Your task to perform on an android device: Play the latest video from the BBC Image 0: 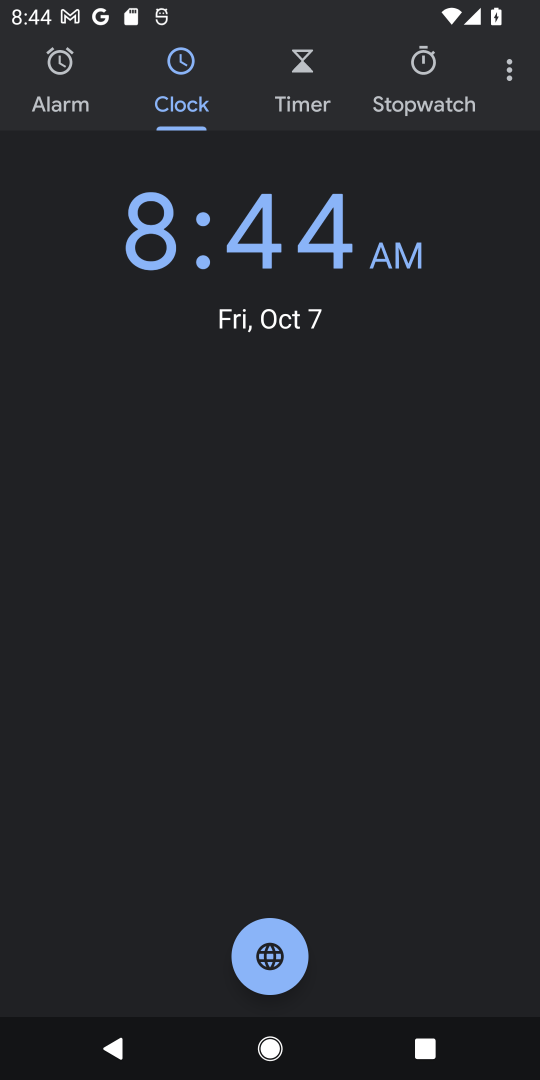
Step 0: press home button
Your task to perform on an android device: Play the latest video from the BBC Image 1: 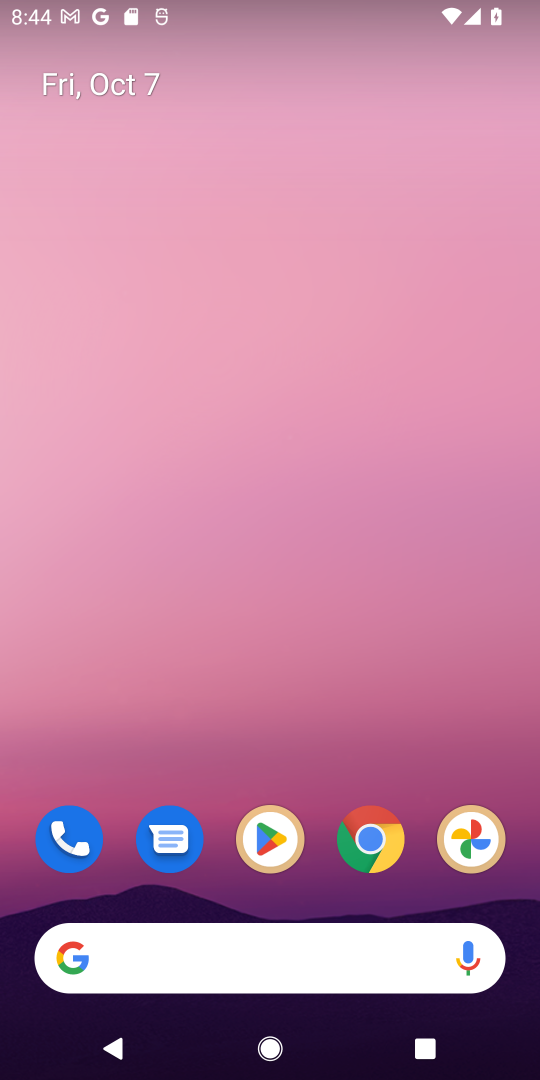
Step 1: click (391, 838)
Your task to perform on an android device: Play the latest video from the BBC Image 2: 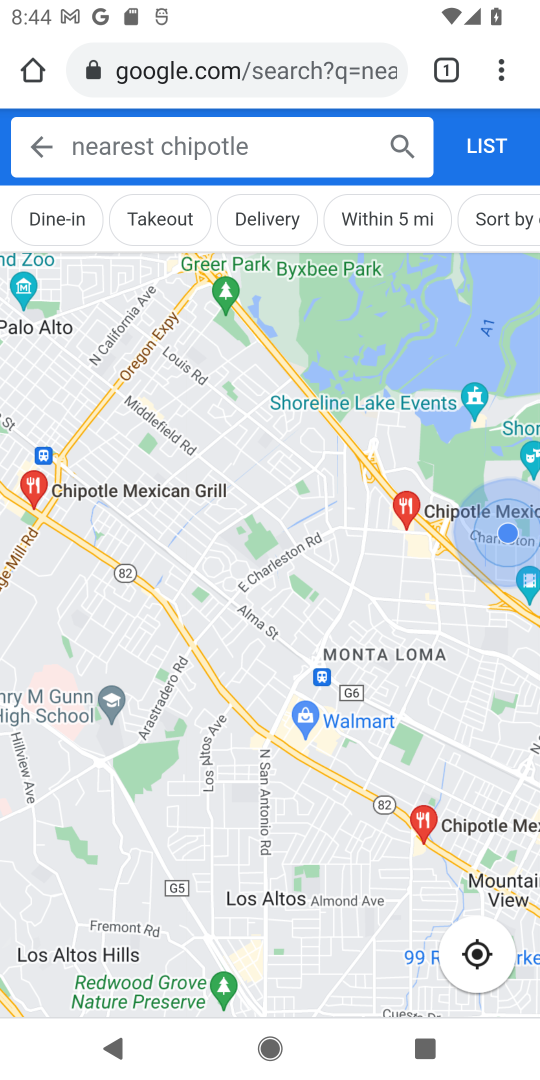
Step 2: click (232, 71)
Your task to perform on an android device: Play the latest video from the BBC Image 3: 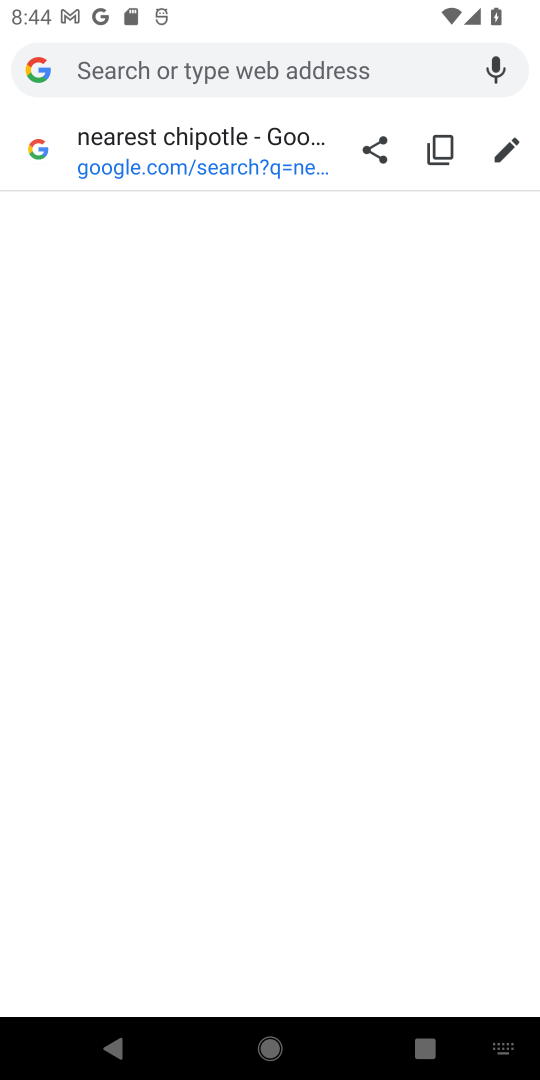
Step 3: type "bbc "
Your task to perform on an android device: Play the latest video from the BBC Image 4: 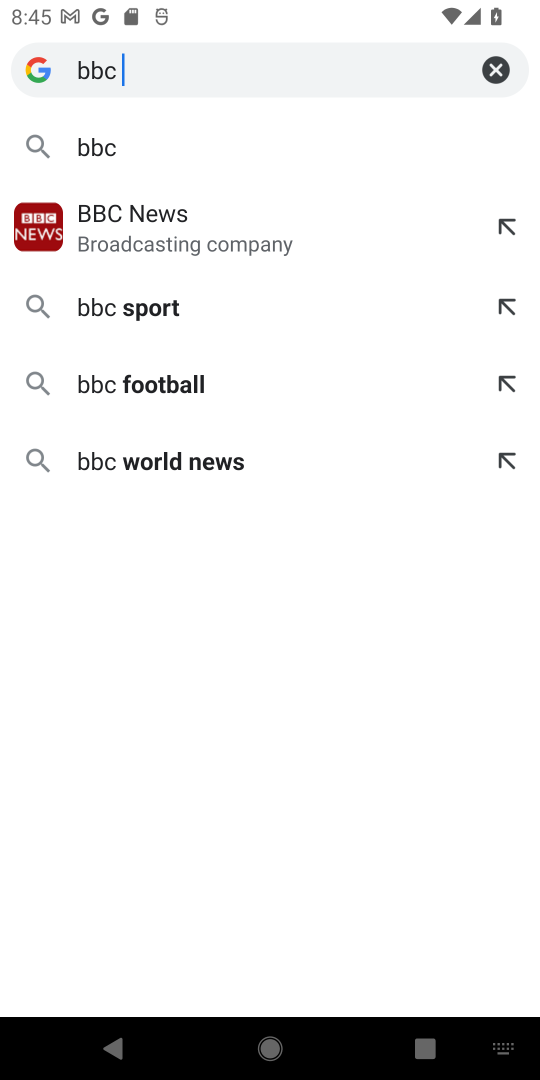
Step 4: click (160, 237)
Your task to perform on an android device: Play the latest video from the BBC Image 5: 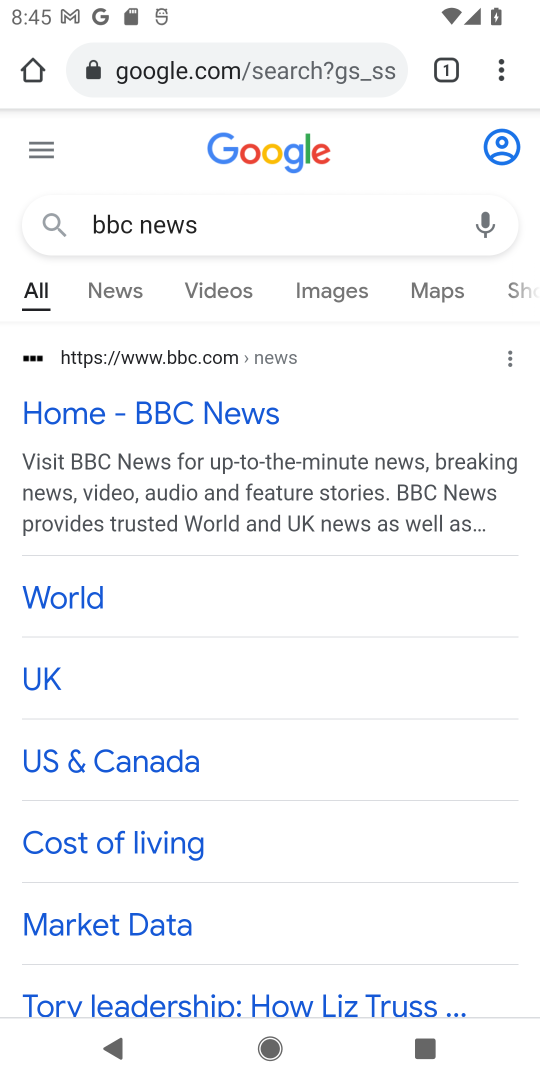
Step 5: drag from (253, 825) to (391, 363)
Your task to perform on an android device: Play the latest video from the BBC Image 6: 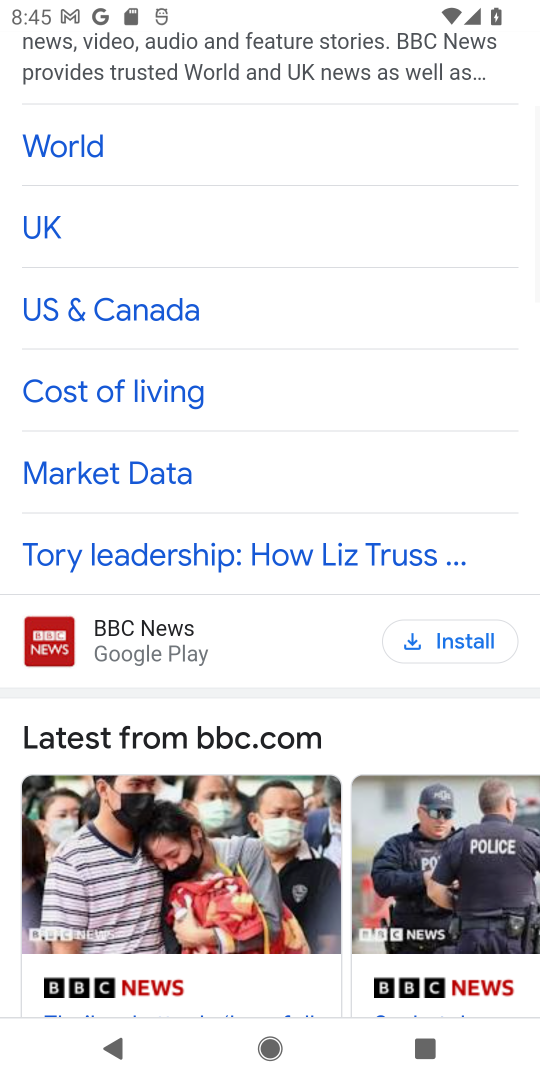
Step 6: drag from (326, 309) to (421, 278)
Your task to perform on an android device: Play the latest video from the BBC Image 7: 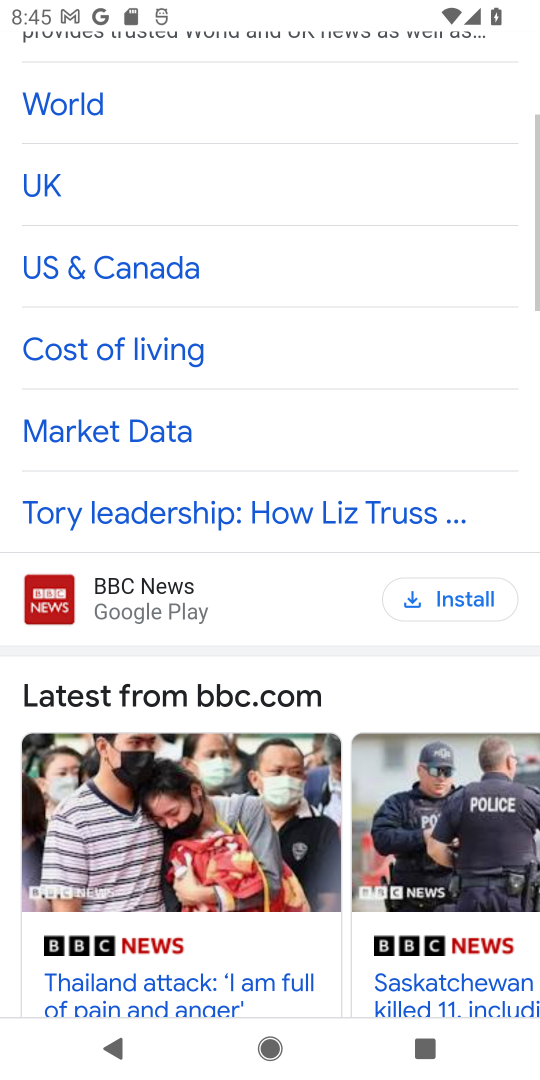
Step 7: click (173, 899)
Your task to perform on an android device: Play the latest video from the BBC Image 8: 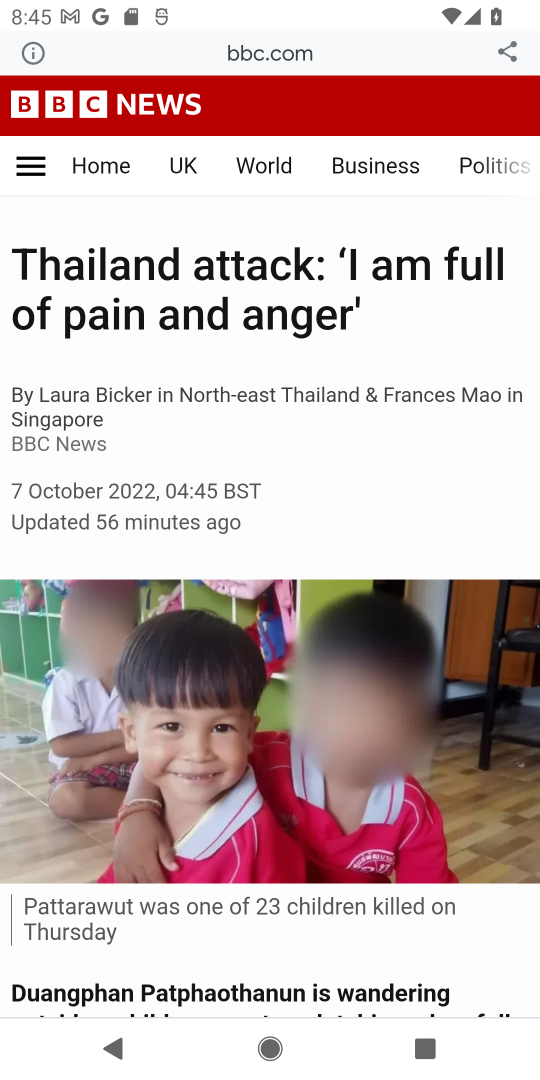
Step 8: click (163, 782)
Your task to perform on an android device: Play the latest video from the BBC Image 9: 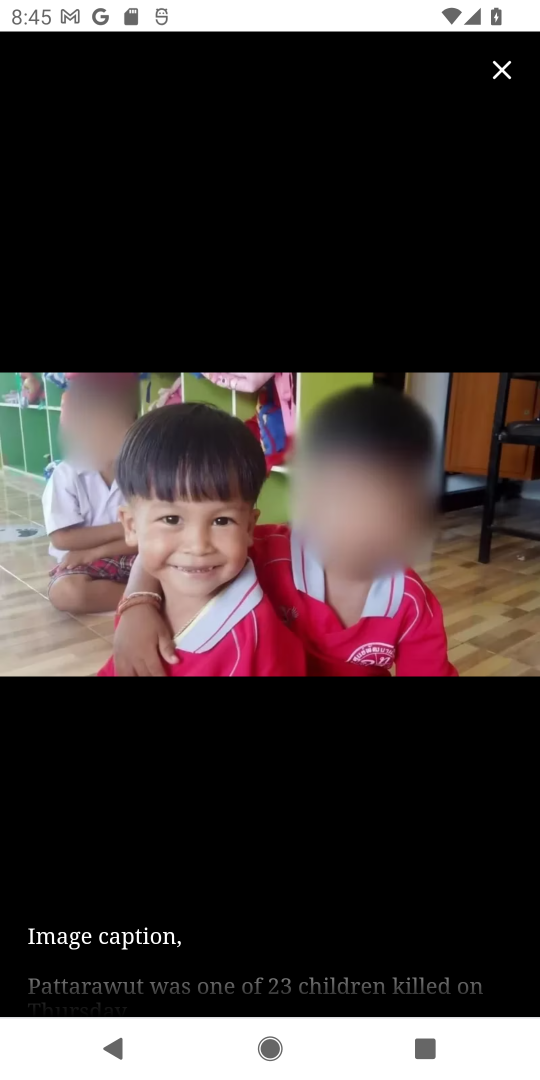
Step 9: drag from (295, 709) to (326, 489)
Your task to perform on an android device: Play the latest video from the BBC Image 10: 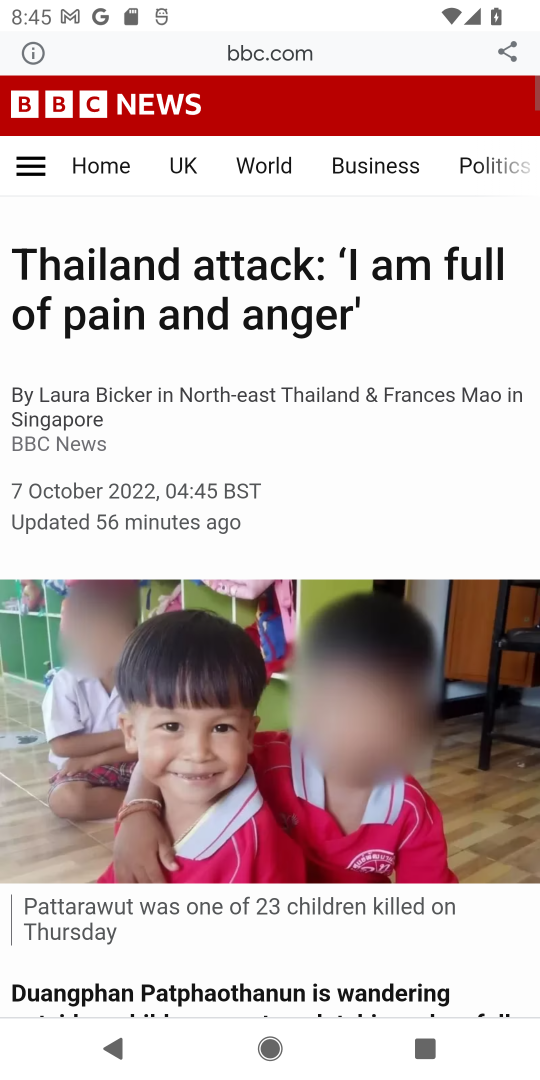
Step 10: drag from (199, 797) to (250, 384)
Your task to perform on an android device: Play the latest video from the BBC Image 11: 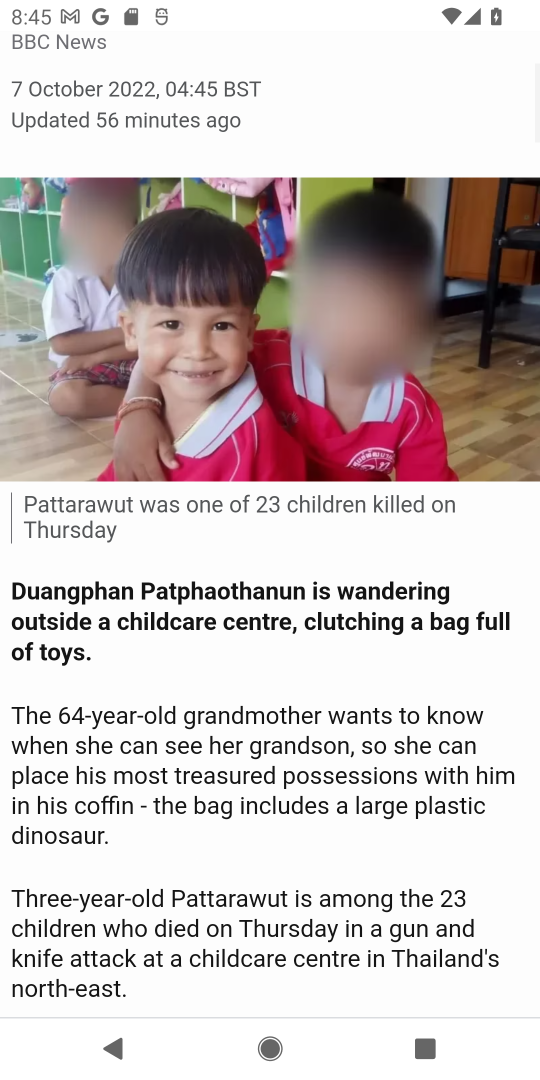
Step 11: drag from (227, 711) to (321, 385)
Your task to perform on an android device: Play the latest video from the BBC Image 12: 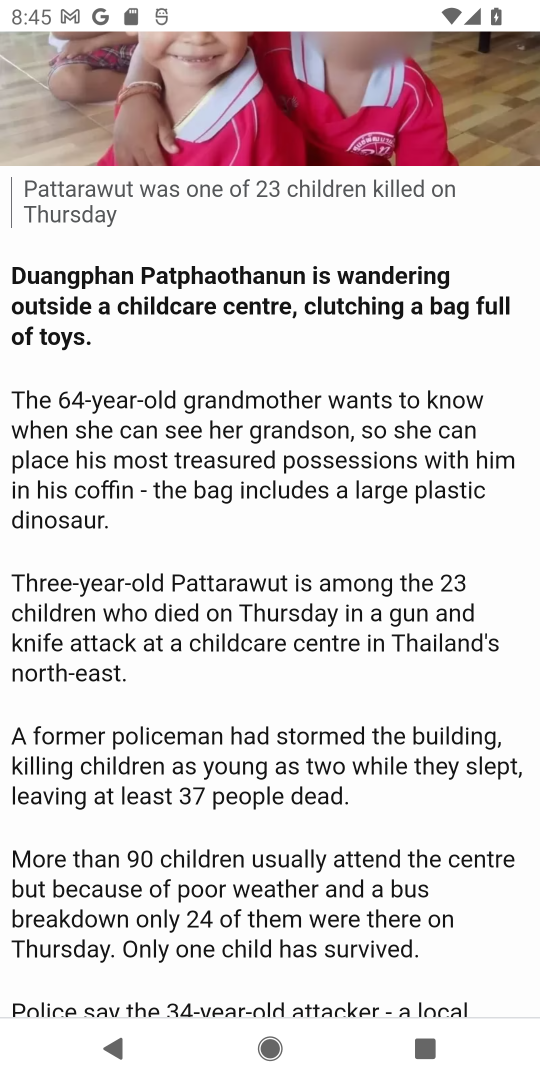
Step 12: drag from (352, 656) to (390, 491)
Your task to perform on an android device: Play the latest video from the BBC Image 13: 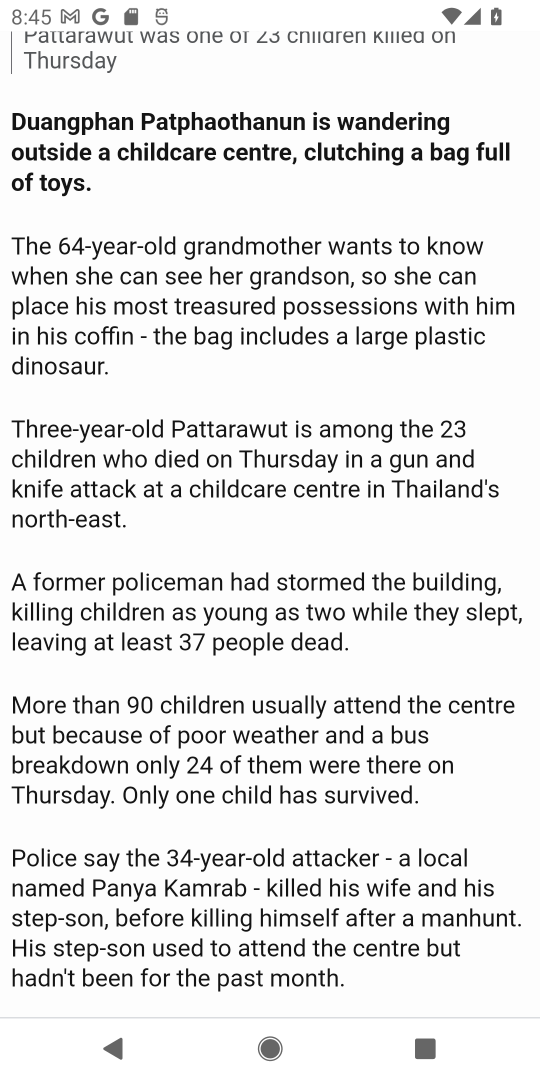
Step 13: press back button
Your task to perform on an android device: Play the latest video from the BBC Image 14: 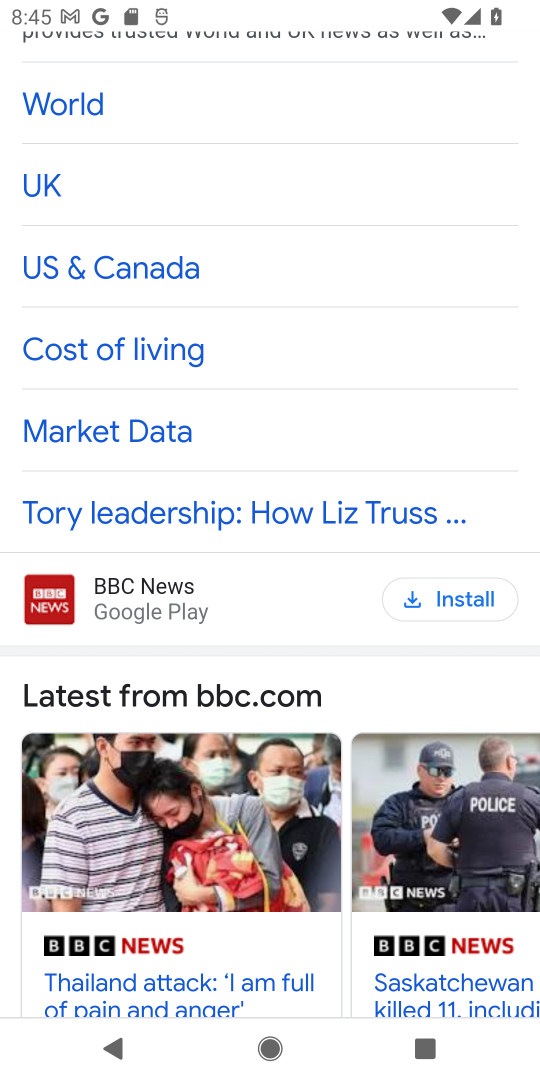
Step 14: drag from (260, 256) to (238, 980)
Your task to perform on an android device: Play the latest video from the BBC Image 15: 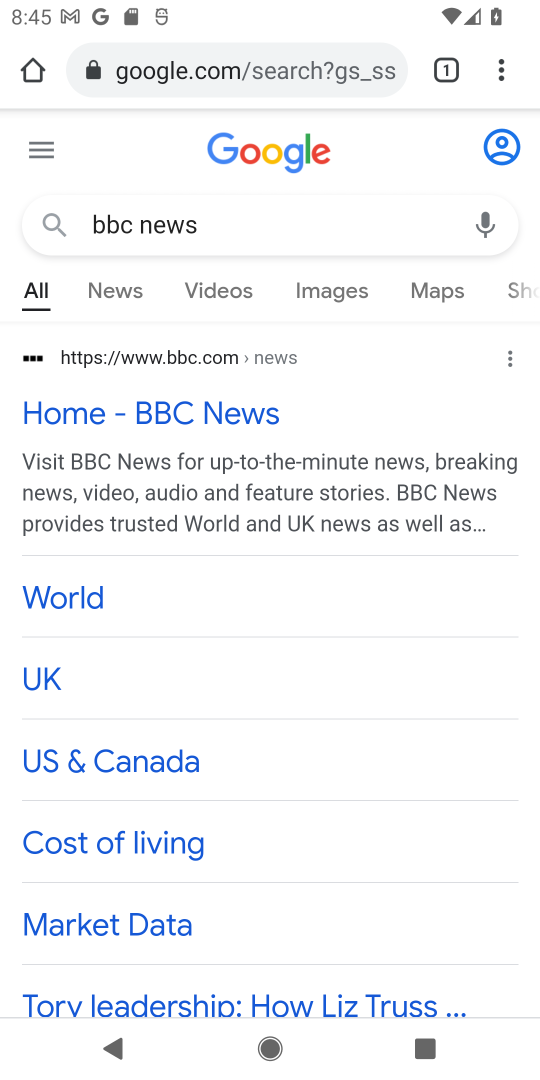
Step 15: click (213, 295)
Your task to perform on an android device: Play the latest video from the BBC Image 16: 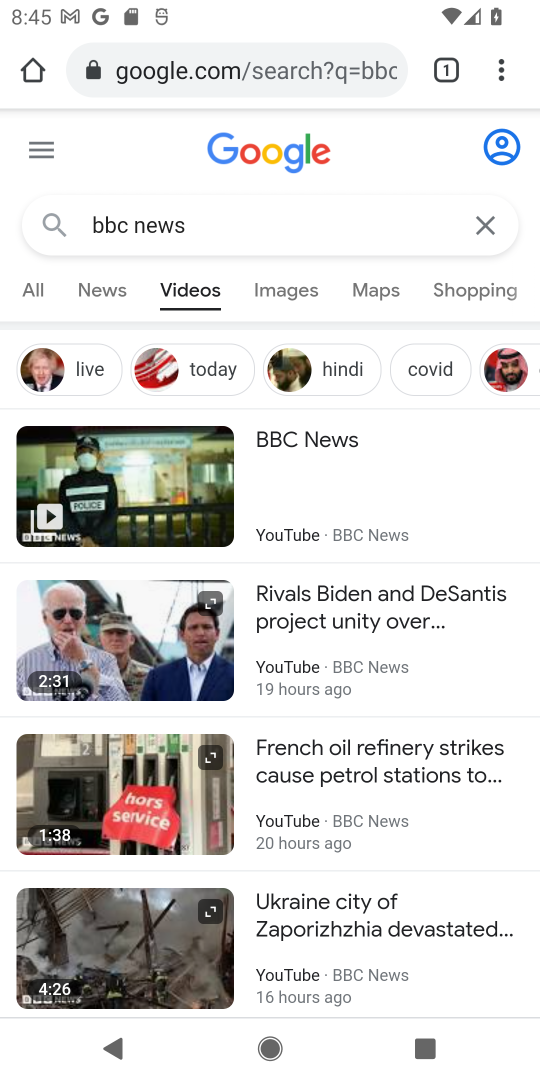
Step 16: drag from (272, 710) to (293, 175)
Your task to perform on an android device: Play the latest video from the BBC Image 17: 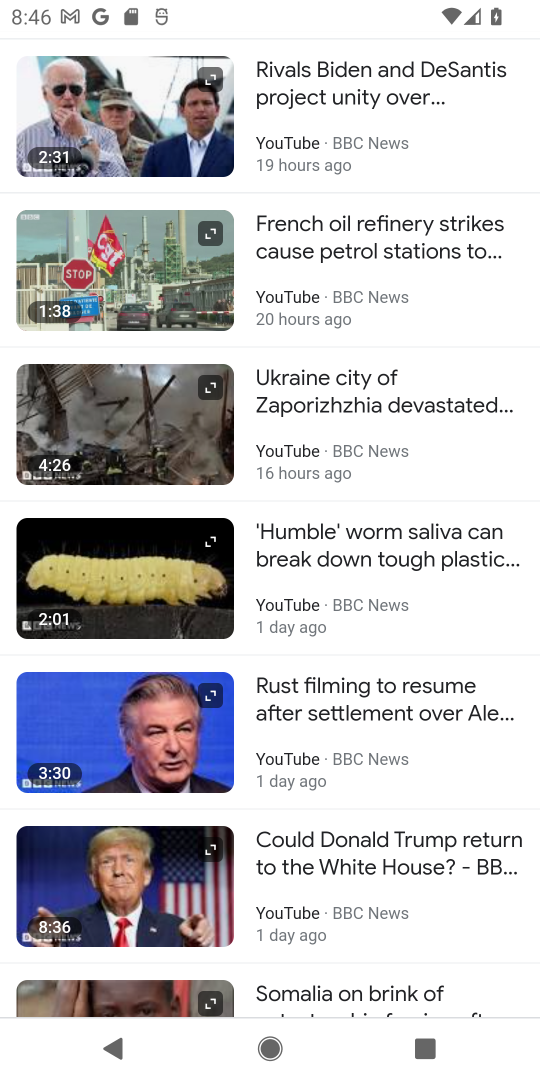
Step 17: drag from (376, 881) to (439, 512)
Your task to perform on an android device: Play the latest video from the BBC Image 18: 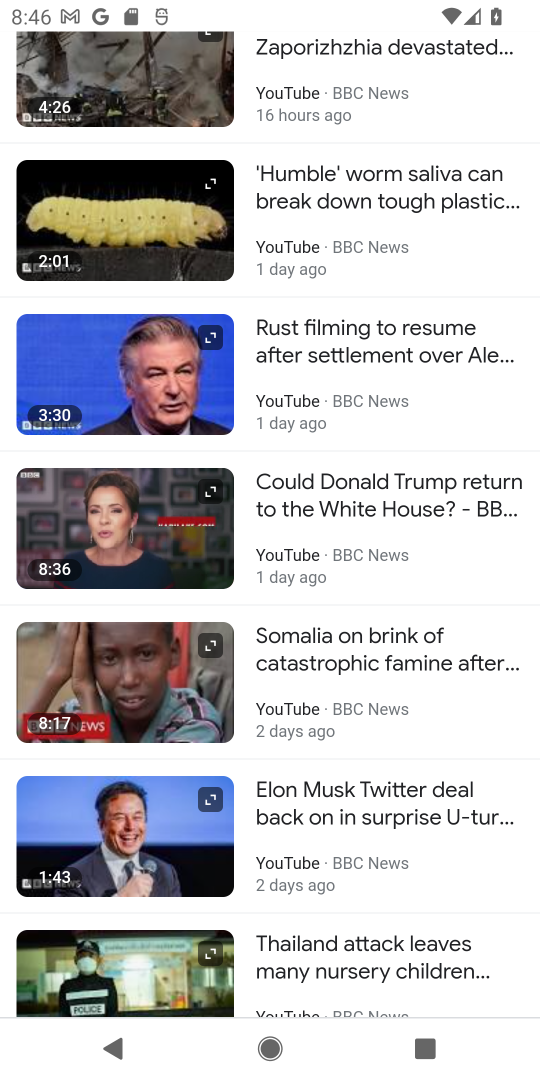
Step 18: drag from (348, 740) to (384, 354)
Your task to perform on an android device: Play the latest video from the BBC Image 19: 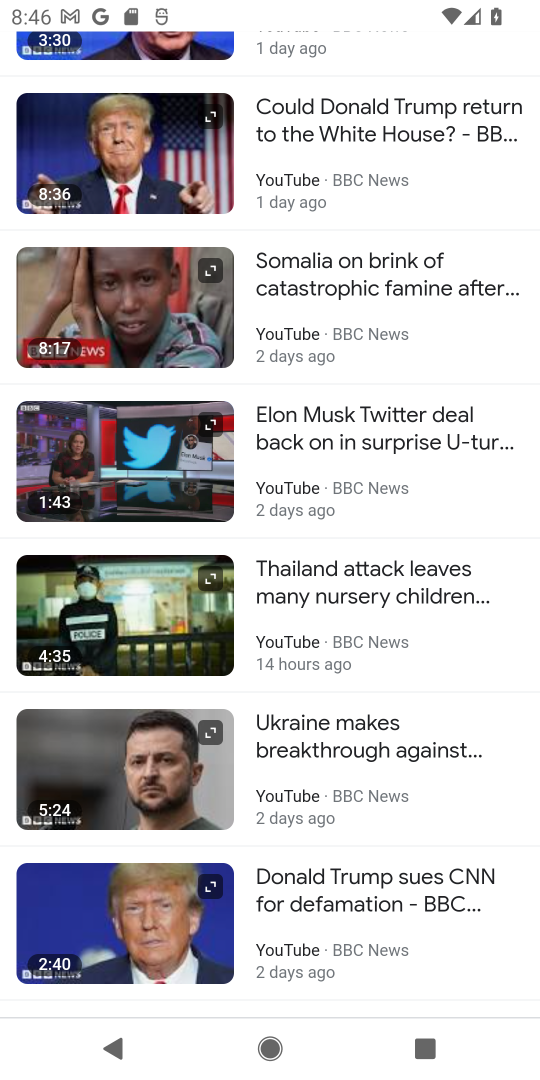
Step 19: click (157, 281)
Your task to perform on an android device: Play the latest video from the BBC Image 20: 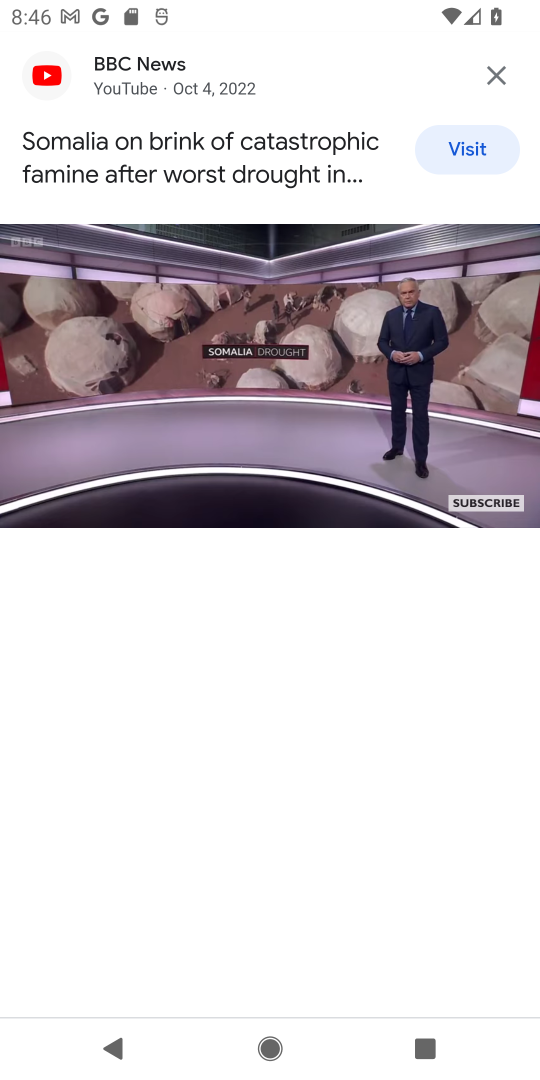
Step 20: task complete